Your task to perform on an android device: turn off picture-in-picture Image 0: 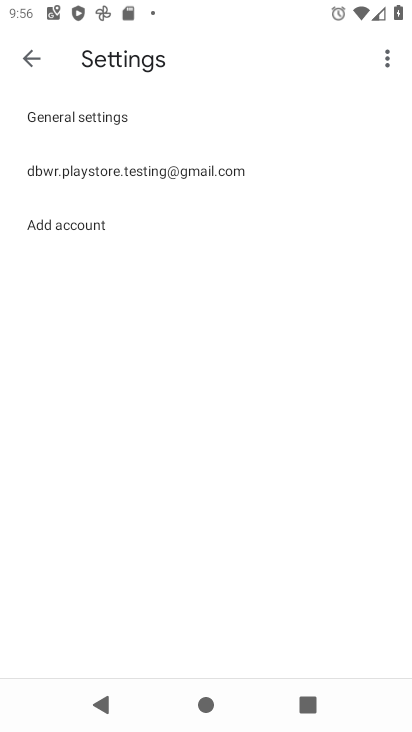
Step 0: press home button
Your task to perform on an android device: turn off picture-in-picture Image 1: 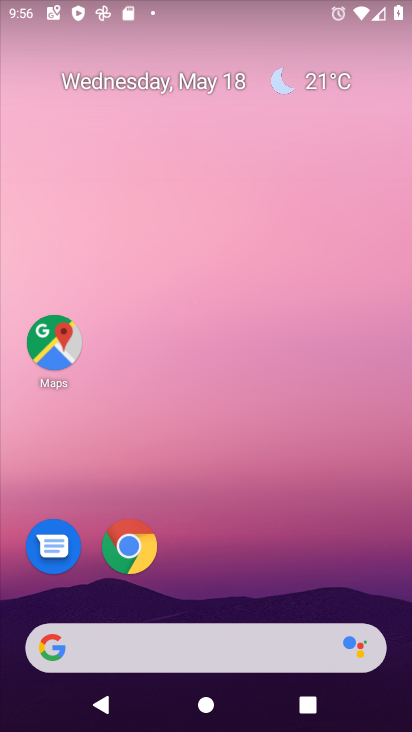
Step 1: drag from (319, 583) to (298, 124)
Your task to perform on an android device: turn off picture-in-picture Image 2: 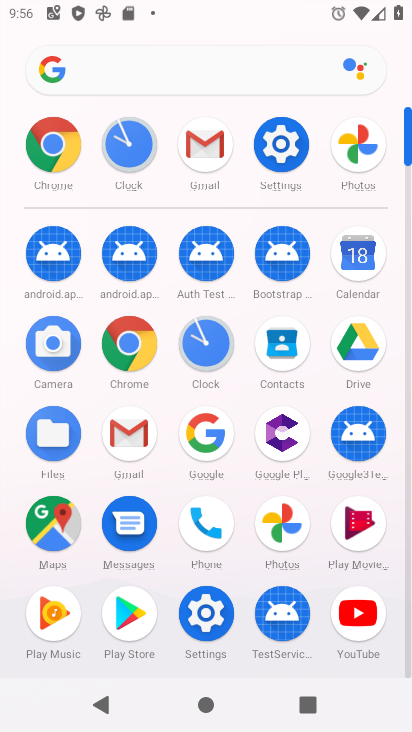
Step 2: click (138, 340)
Your task to perform on an android device: turn off picture-in-picture Image 3: 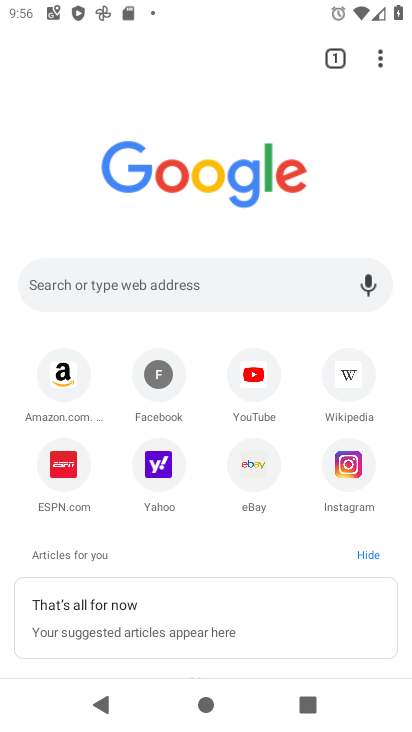
Step 3: task complete